Your task to perform on an android device: open the mobile data screen to see how much data has been used Image 0: 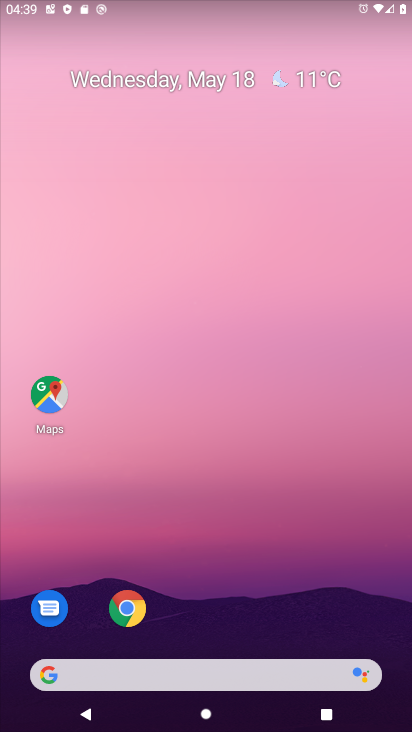
Step 0: drag from (228, 7) to (314, 595)
Your task to perform on an android device: open the mobile data screen to see how much data has been used Image 1: 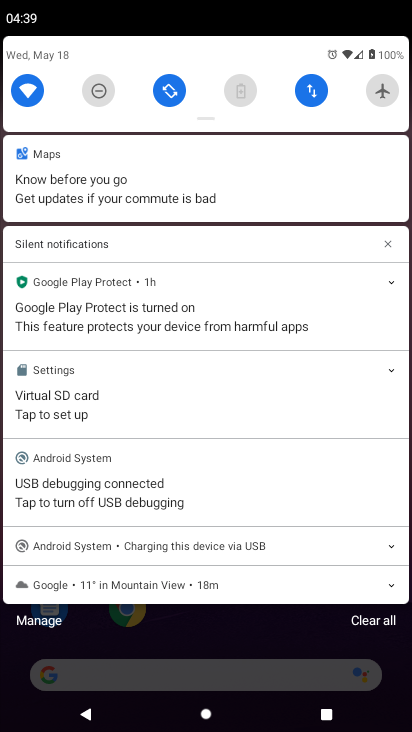
Step 1: click (316, 90)
Your task to perform on an android device: open the mobile data screen to see how much data has been used Image 2: 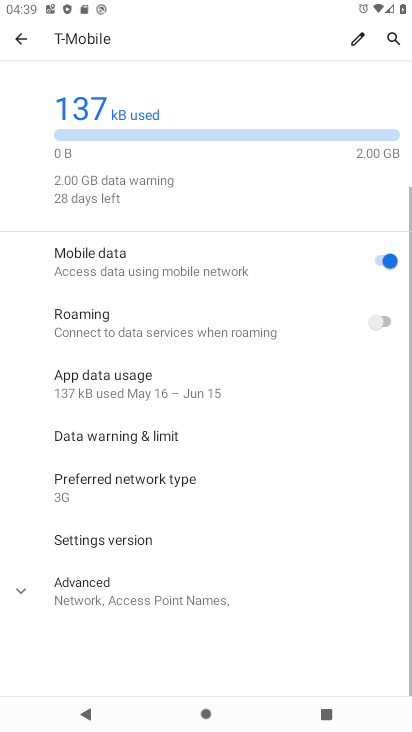
Step 2: task complete